Your task to perform on an android device: Open calendar and show me the third week of next month Image 0: 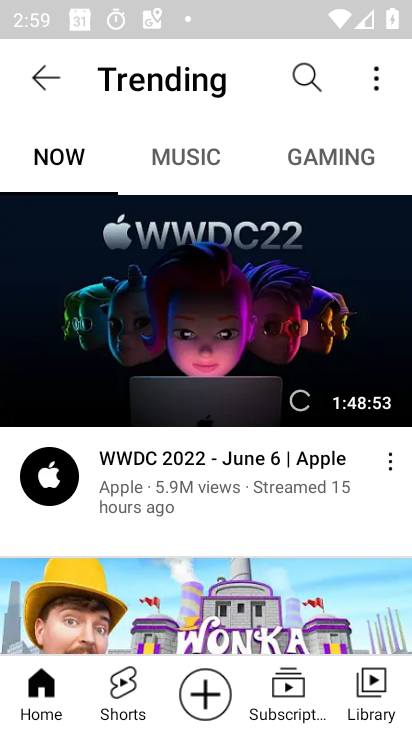
Step 0: click (65, 412)
Your task to perform on an android device: Open calendar and show me the third week of next month Image 1: 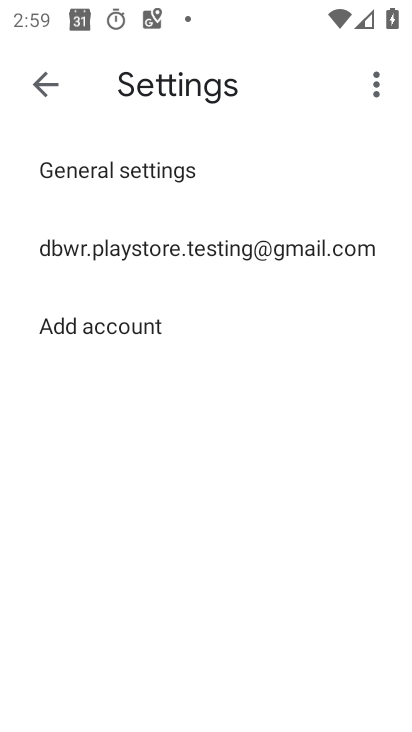
Step 1: press home button
Your task to perform on an android device: Open calendar and show me the third week of next month Image 2: 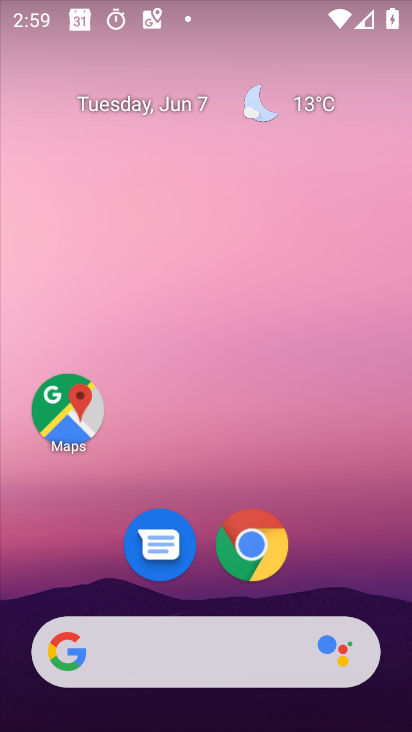
Step 2: click (147, 102)
Your task to perform on an android device: Open calendar and show me the third week of next month Image 3: 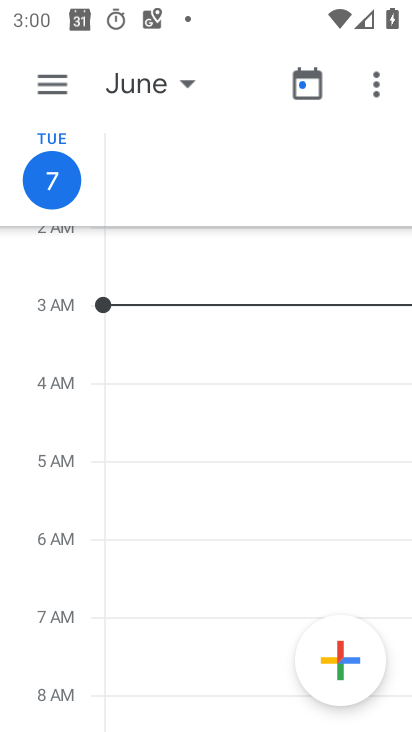
Step 3: click (52, 90)
Your task to perform on an android device: Open calendar and show me the third week of next month Image 4: 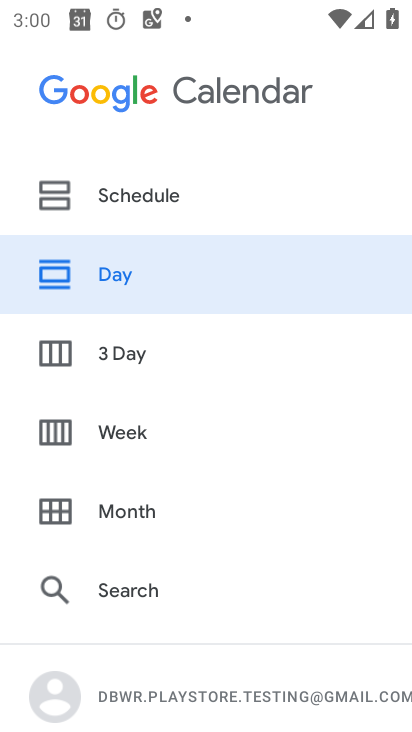
Step 4: click (123, 437)
Your task to perform on an android device: Open calendar and show me the third week of next month Image 5: 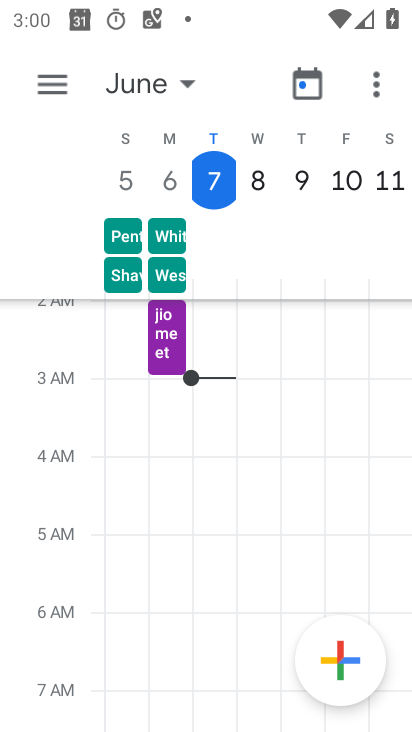
Step 5: click (187, 84)
Your task to perform on an android device: Open calendar and show me the third week of next month Image 6: 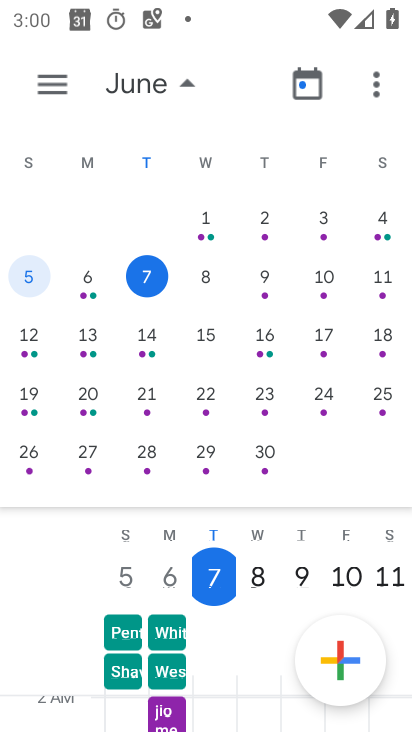
Step 6: drag from (353, 359) to (0, 241)
Your task to perform on an android device: Open calendar and show me the third week of next month Image 7: 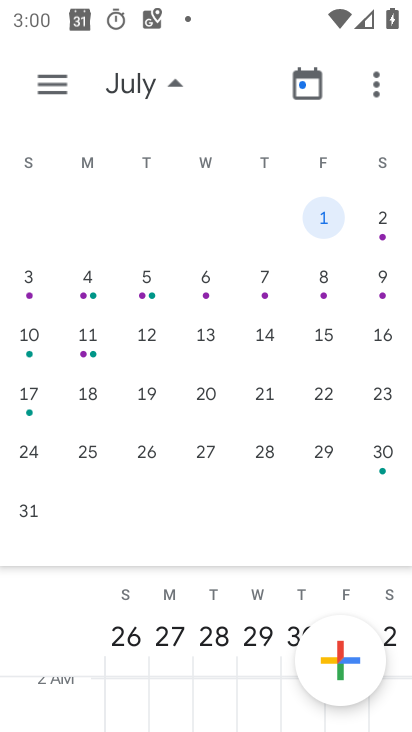
Step 7: click (35, 387)
Your task to perform on an android device: Open calendar and show me the third week of next month Image 8: 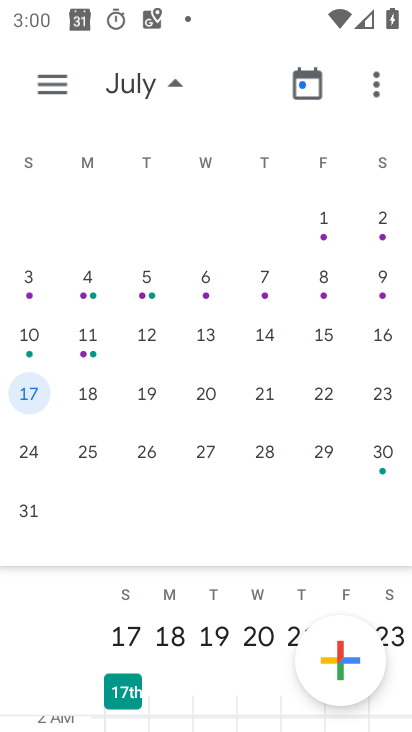
Step 8: task complete